Your task to perform on an android device: Search for sushi restaurants on Maps Image 0: 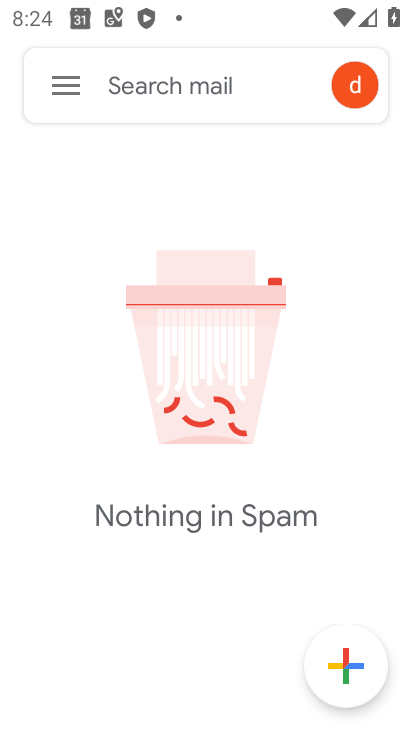
Step 0: press back button
Your task to perform on an android device: Search for sushi restaurants on Maps Image 1: 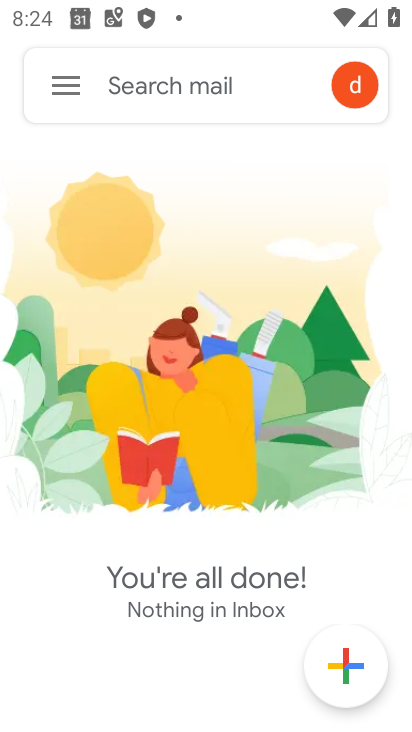
Step 1: press back button
Your task to perform on an android device: Search for sushi restaurants on Maps Image 2: 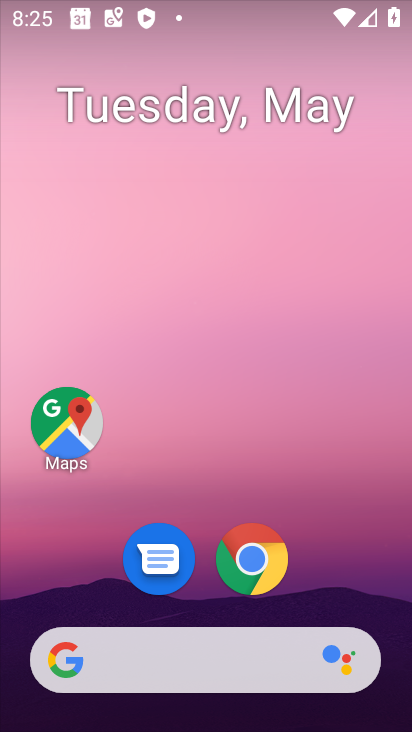
Step 2: click (70, 430)
Your task to perform on an android device: Search for sushi restaurants on Maps Image 3: 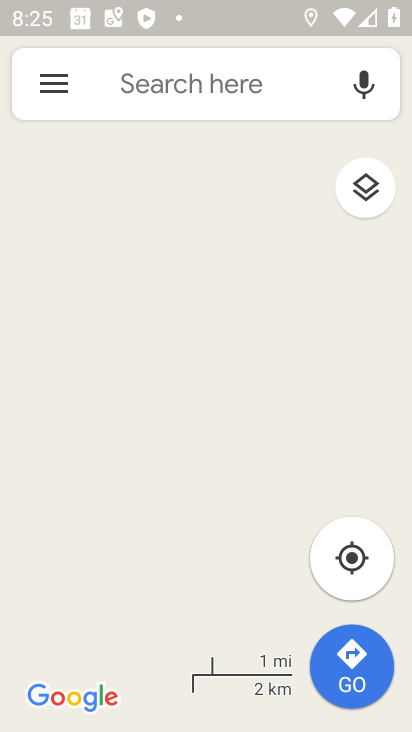
Step 3: click (189, 82)
Your task to perform on an android device: Search for sushi restaurants on Maps Image 4: 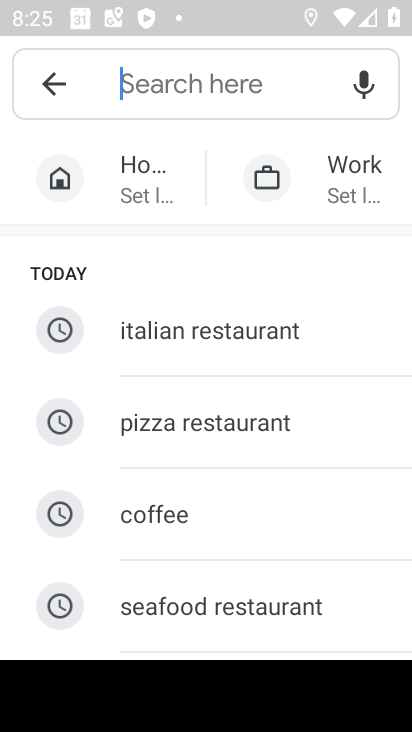
Step 4: drag from (248, 599) to (296, 199)
Your task to perform on an android device: Search for sushi restaurants on Maps Image 5: 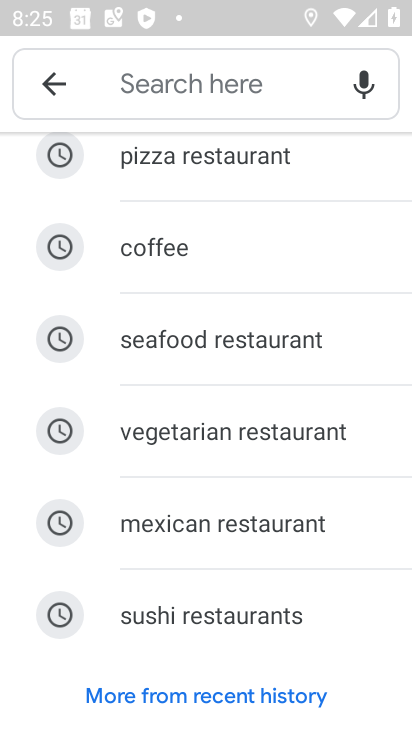
Step 5: click (212, 615)
Your task to perform on an android device: Search for sushi restaurants on Maps Image 6: 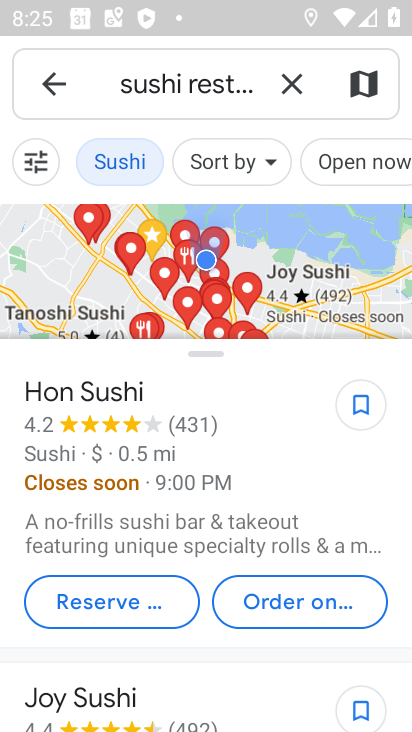
Step 6: task complete